Your task to perform on an android device: turn pop-ups off in chrome Image 0: 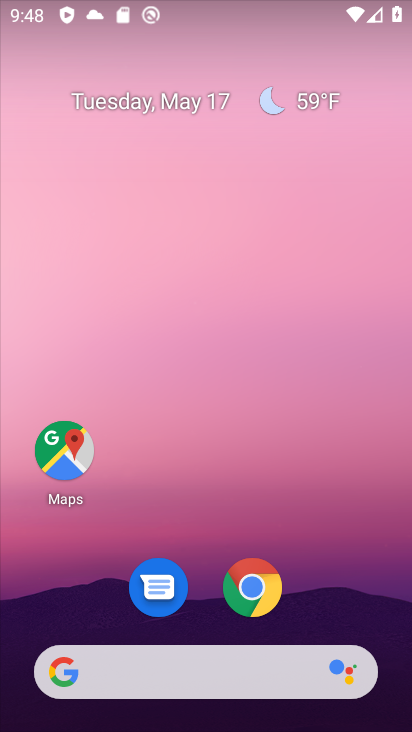
Step 0: click (258, 591)
Your task to perform on an android device: turn pop-ups off in chrome Image 1: 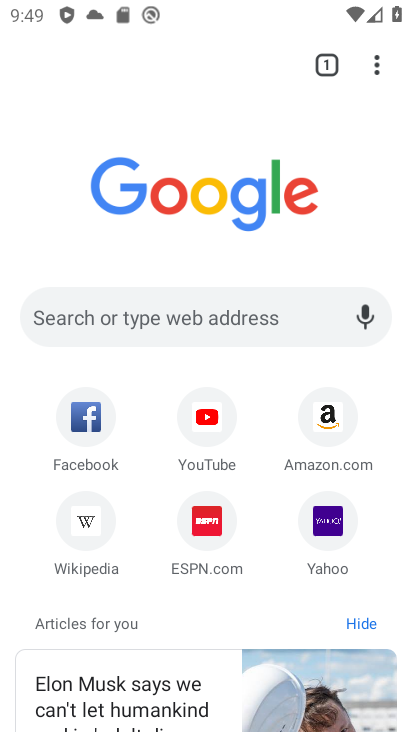
Step 1: click (383, 65)
Your task to perform on an android device: turn pop-ups off in chrome Image 2: 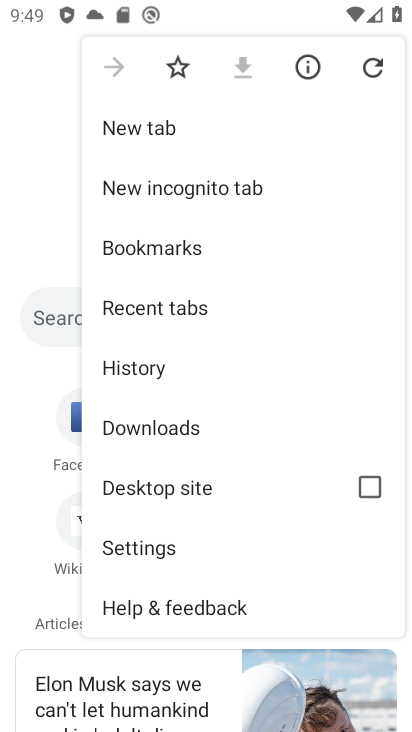
Step 2: click (150, 552)
Your task to perform on an android device: turn pop-ups off in chrome Image 3: 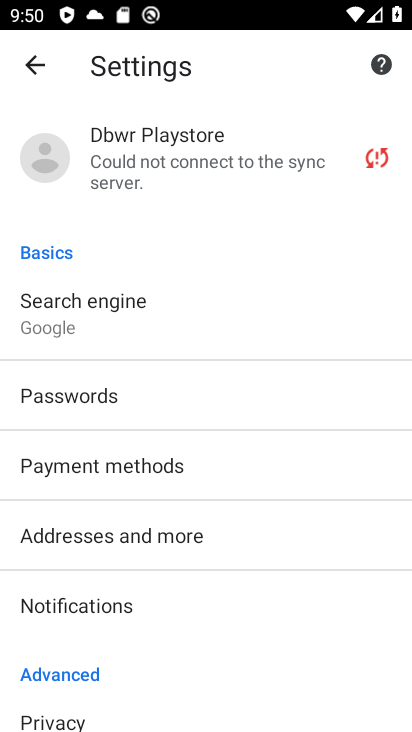
Step 3: drag from (247, 647) to (277, 268)
Your task to perform on an android device: turn pop-ups off in chrome Image 4: 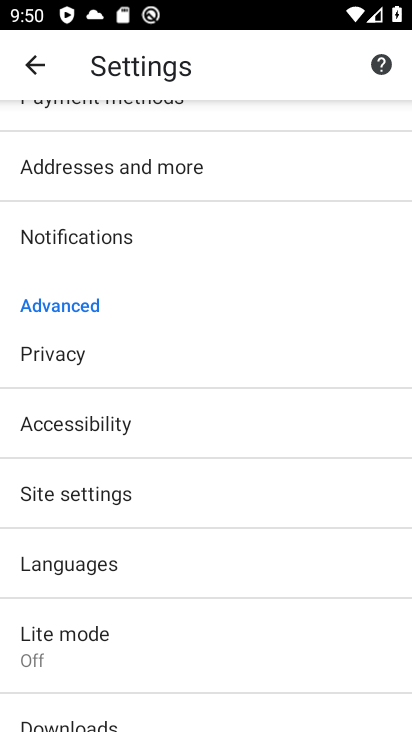
Step 4: click (128, 504)
Your task to perform on an android device: turn pop-ups off in chrome Image 5: 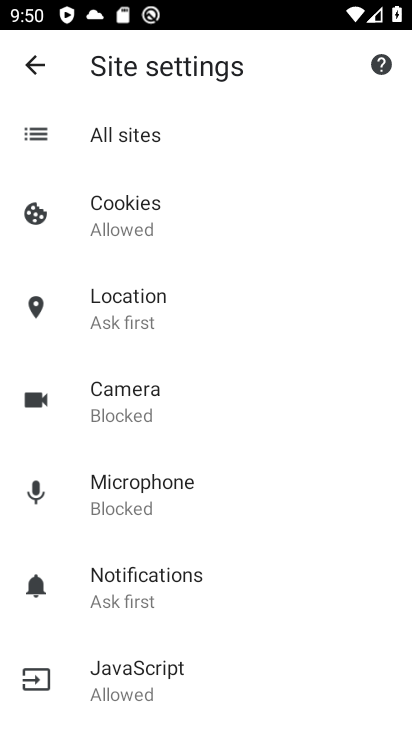
Step 5: drag from (198, 648) to (201, 334)
Your task to perform on an android device: turn pop-ups off in chrome Image 6: 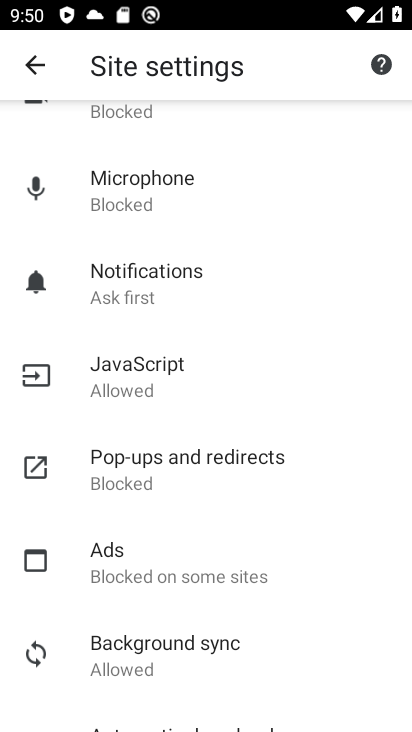
Step 6: click (171, 452)
Your task to perform on an android device: turn pop-ups off in chrome Image 7: 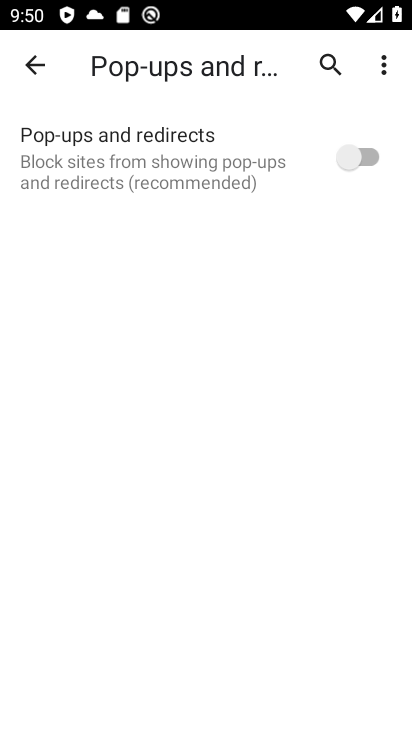
Step 7: task complete